Your task to perform on an android device: Go to Google maps Image 0: 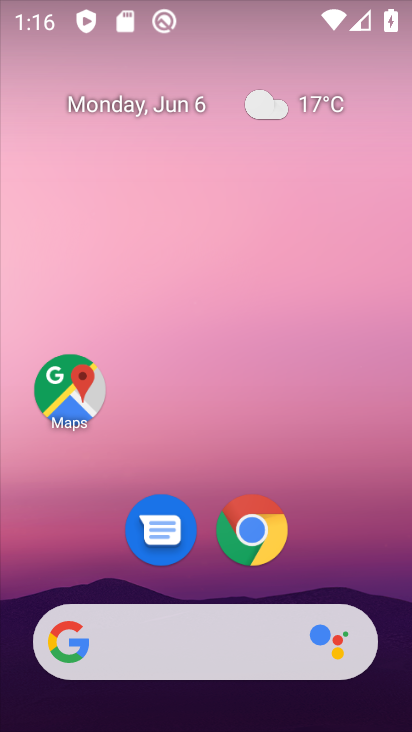
Step 0: click (62, 383)
Your task to perform on an android device: Go to Google maps Image 1: 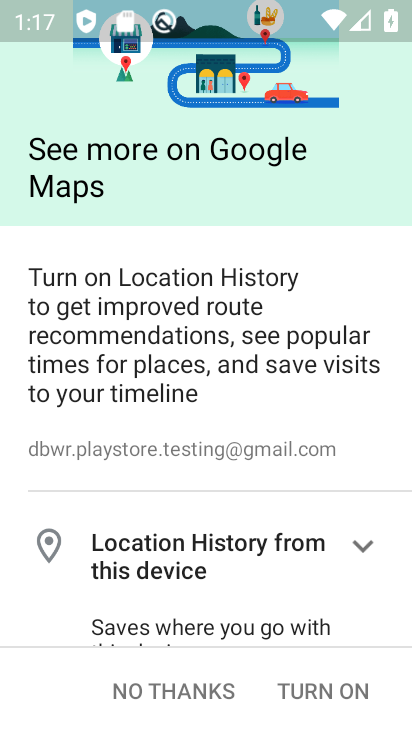
Step 1: click (169, 677)
Your task to perform on an android device: Go to Google maps Image 2: 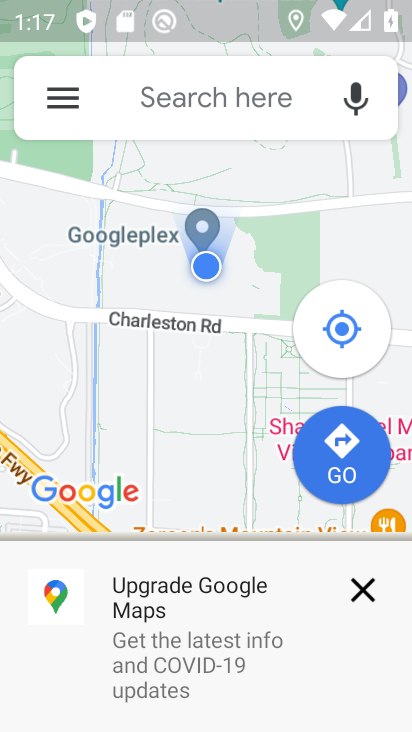
Step 2: task complete